Your task to perform on an android device: Open notification settings Image 0: 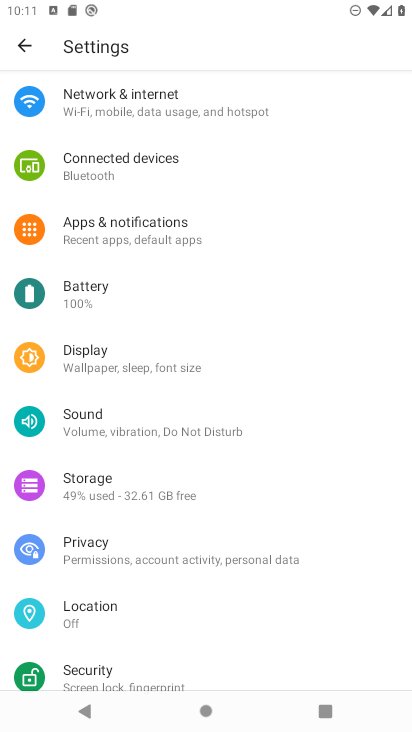
Step 0: press home button
Your task to perform on an android device: Open notification settings Image 1: 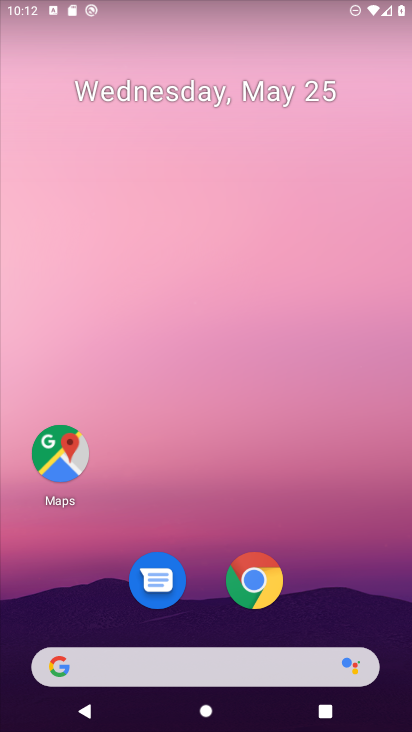
Step 1: drag from (52, 529) to (196, 166)
Your task to perform on an android device: Open notification settings Image 2: 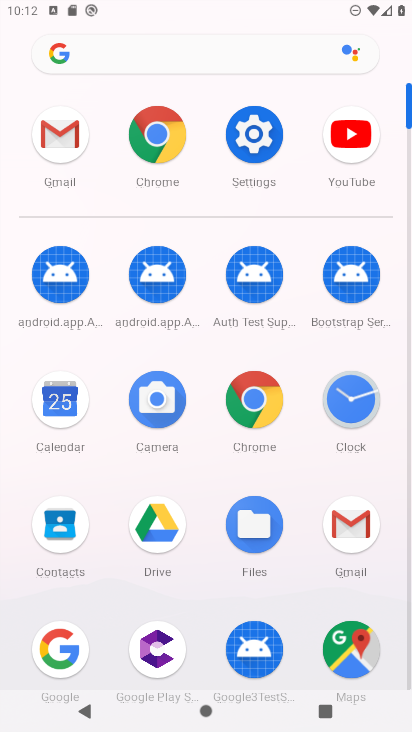
Step 2: click (253, 131)
Your task to perform on an android device: Open notification settings Image 3: 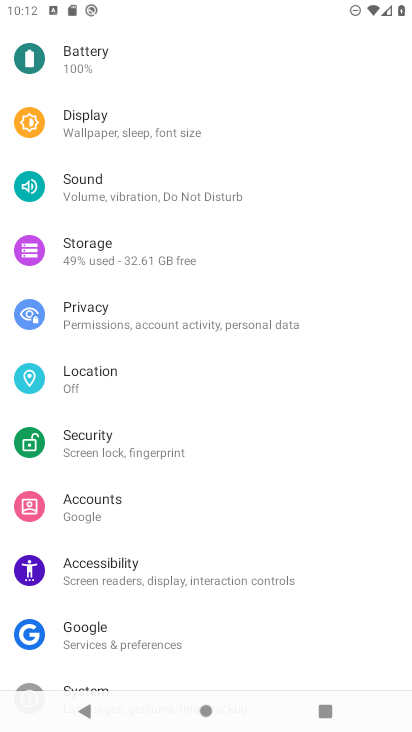
Step 3: drag from (152, 156) to (148, 699)
Your task to perform on an android device: Open notification settings Image 4: 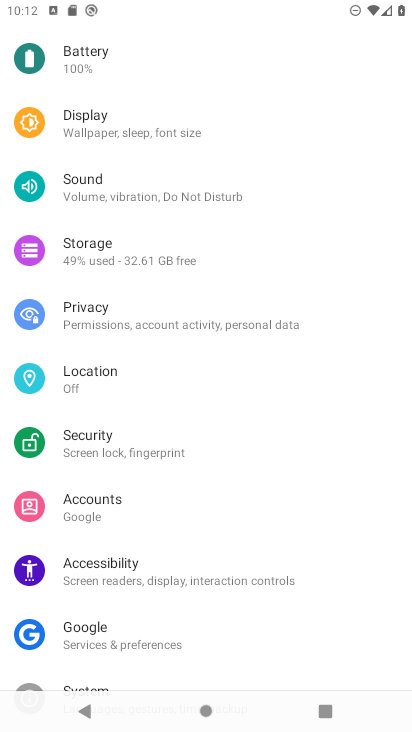
Step 4: drag from (180, 75) to (177, 555)
Your task to perform on an android device: Open notification settings Image 5: 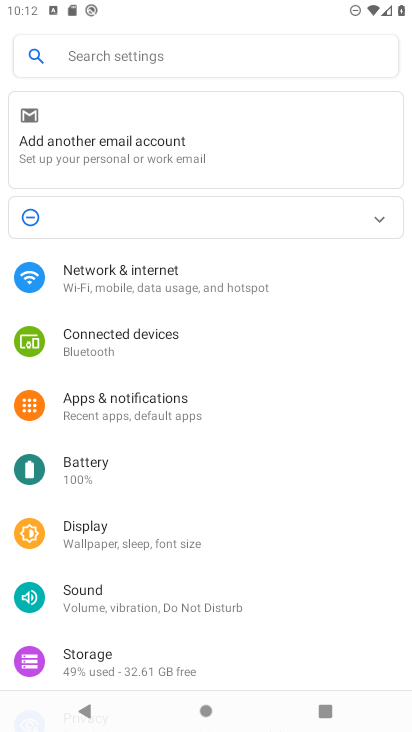
Step 5: click (72, 398)
Your task to perform on an android device: Open notification settings Image 6: 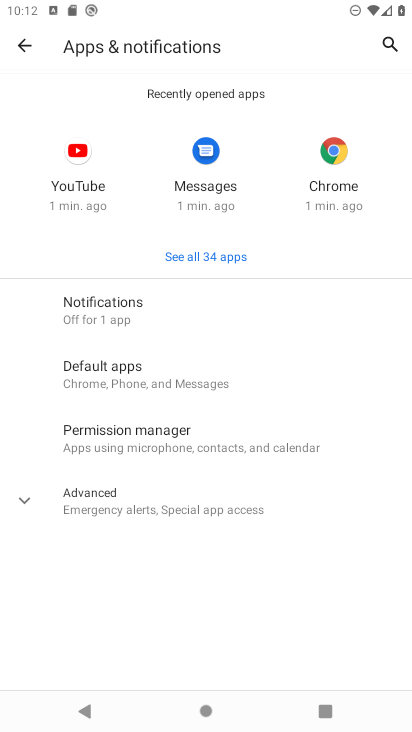
Step 6: task complete